Your task to perform on an android device: What's the top post on reddit? Image 0: 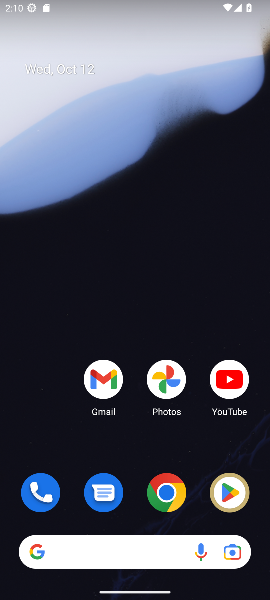
Step 0: click (171, 492)
Your task to perform on an android device: What's the top post on reddit? Image 1: 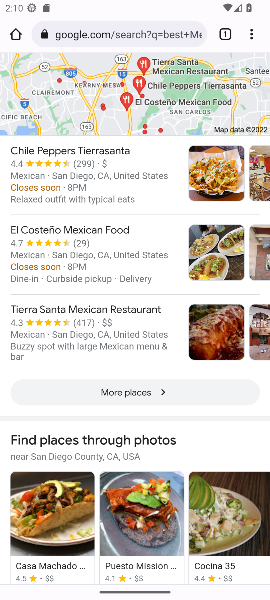
Step 1: click (93, 36)
Your task to perform on an android device: What's the top post on reddit? Image 2: 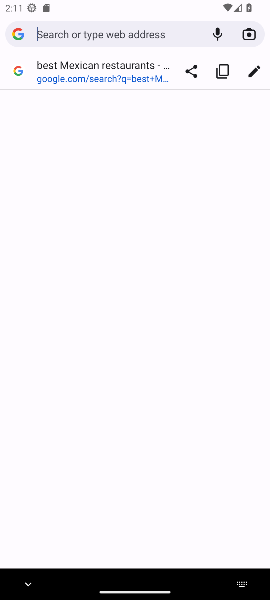
Step 2: type "top post on reddit"
Your task to perform on an android device: What's the top post on reddit? Image 3: 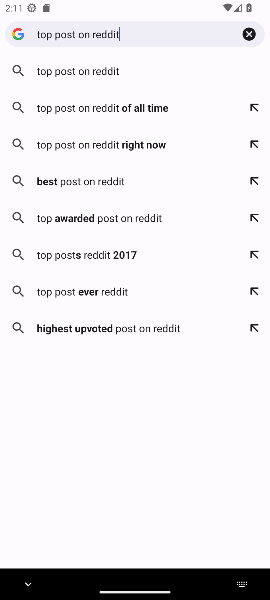
Step 3: click (78, 69)
Your task to perform on an android device: What's the top post on reddit? Image 4: 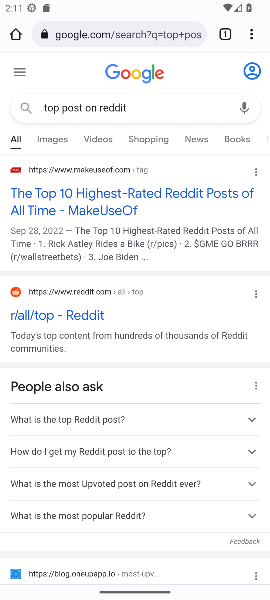
Step 4: click (63, 212)
Your task to perform on an android device: What's the top post on reddit? Image 5: 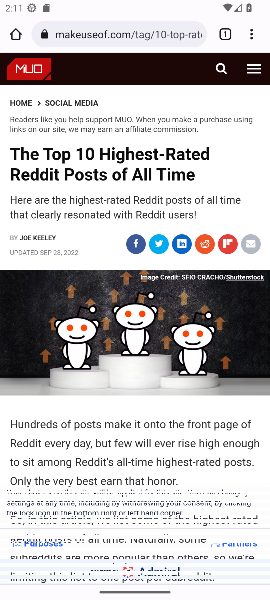
Step 5: drag from (90, 315) to (95, 101)
Your task to perform on an android device: What's the top post on reddit? Image 6: 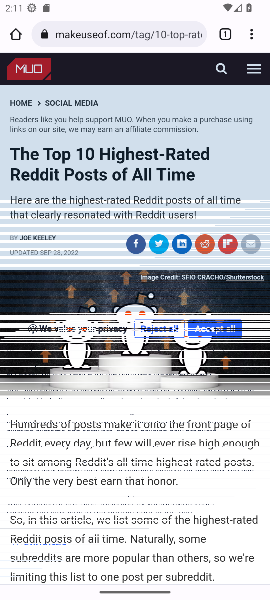
Step 6: drag from (94, 405) to (92, 143)
Your task to perform on an android device: What's the top post on reddit? Image 7: 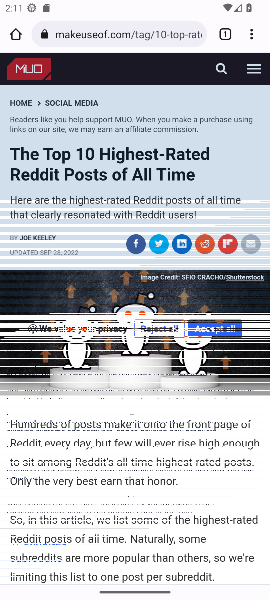
Step 7: drag from (178, 459) to (160, 113)
Your task to perform on an android device: What's the top post on reddit? Image 8: 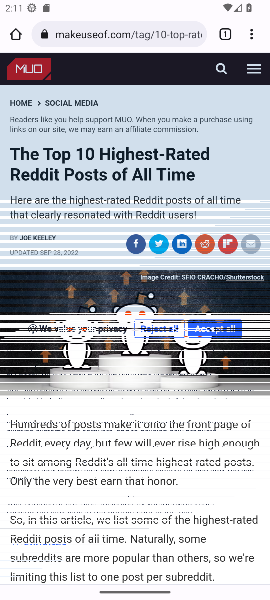
Step 8: drag from (151, 407) to (153, 92)
Your task to perform on an android device: What's the top post on reddit? Image 9: 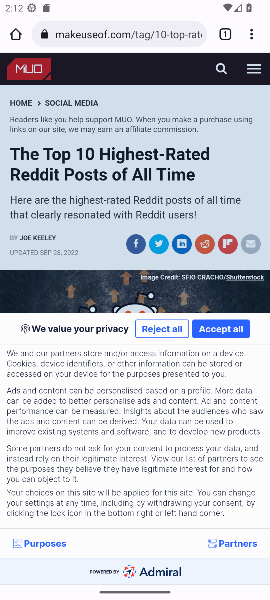
Step 9: drag from (143, 465) to (138, 138)
Your task to perform on an android device: What's the top post on reddit? Image 10: 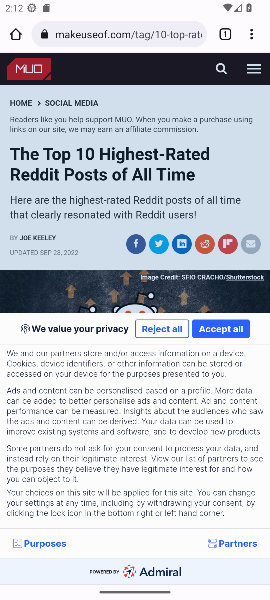
Step 10: drag from (159, 371) to (161, 71)
Your task to perform on an android device: What's the top post on reddit? Image 11: 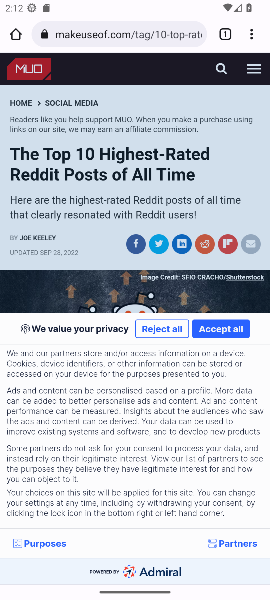
Step 11: drag from (113, 410) to (115, 171)
Your task to perform on an android device: What's the top post on reddit? Image 12: 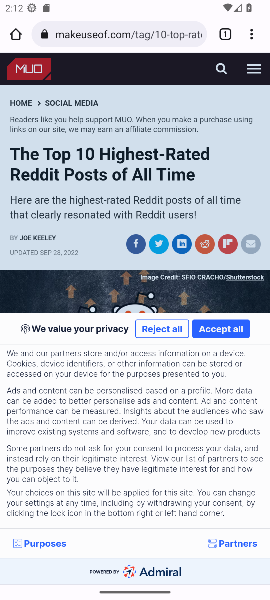
Step 12: click (209, 324)
Your task to perform on an android device: What's the top post on reddit? Image 13: 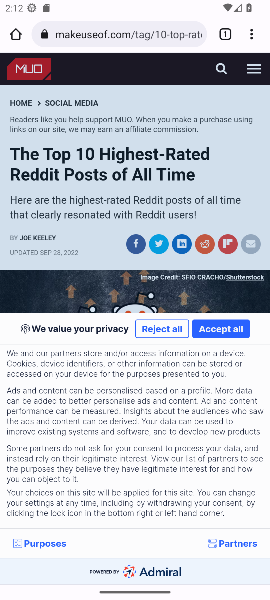
Step 13: task complete